Your task to perform on an android device: Open Google Chrome Image 0: 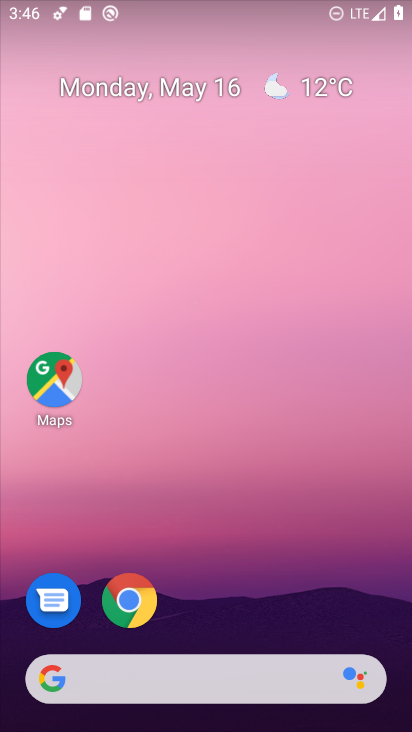
Step 0: click (129, 597)
Your task to perform on an android device: Open Google Chrome Image 1: 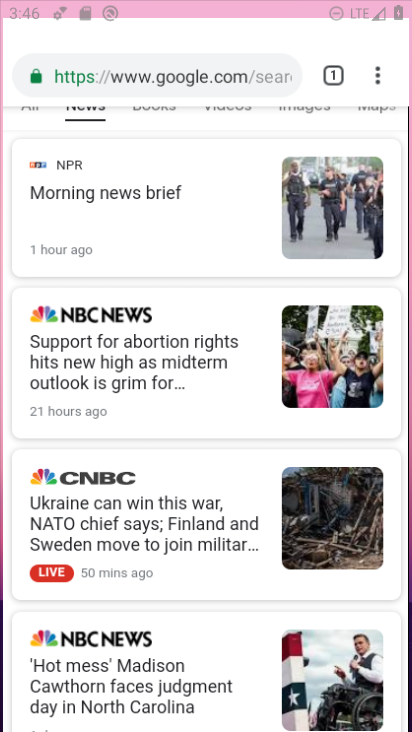
Step 1: click (116, 588)
Your task to perform on an android device: Open Google Chrome Image 2: 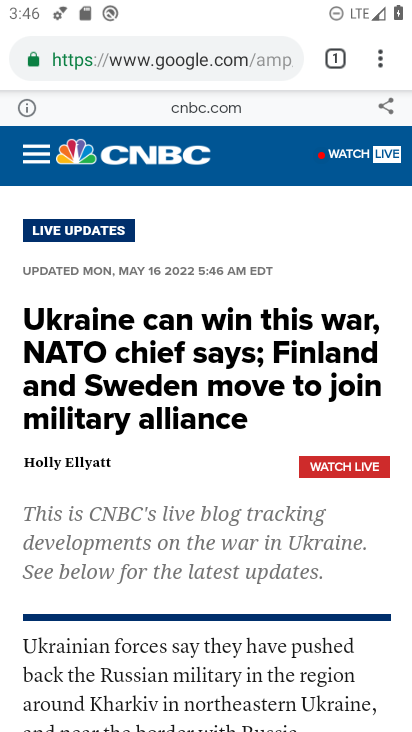
Step 2: task complete